Your task to perform on an android device: What's the weather? Image 0: 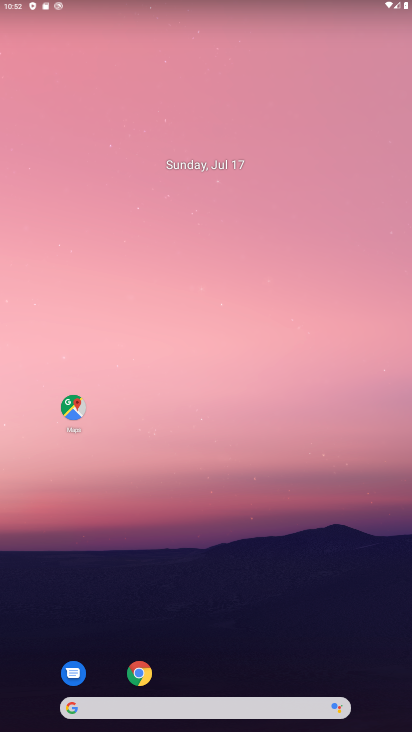
Step 0: click (218, 702)
Your task to perform on an android device: What's the weather? Image 1: 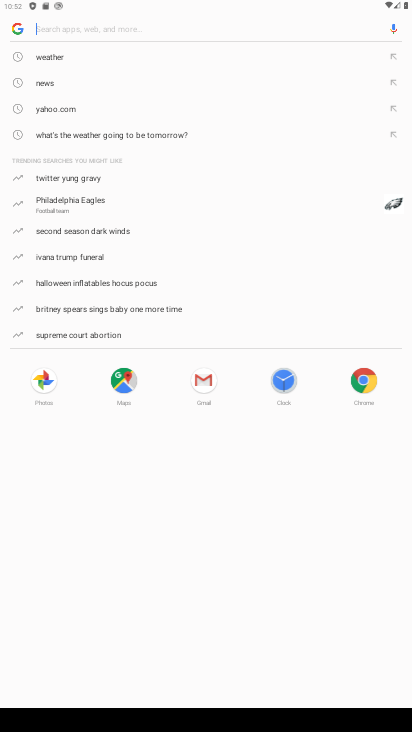
Step 1: type "weather"
Your task to perform on an android device: What's the weather? Image 2: 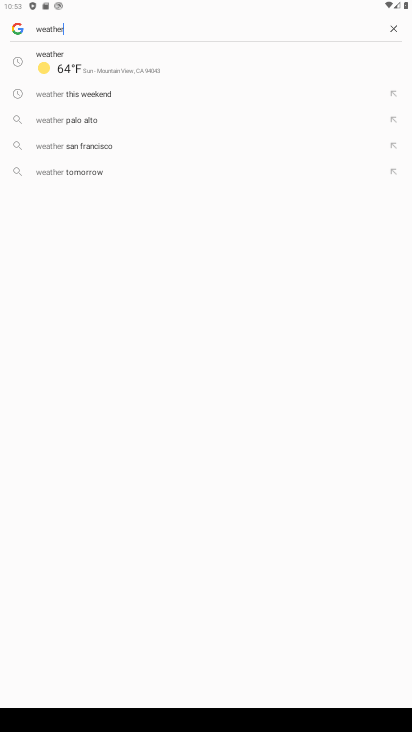
Step 2: click (59, 52)
Your task to perform on an android device: What's the weather? Image 3: 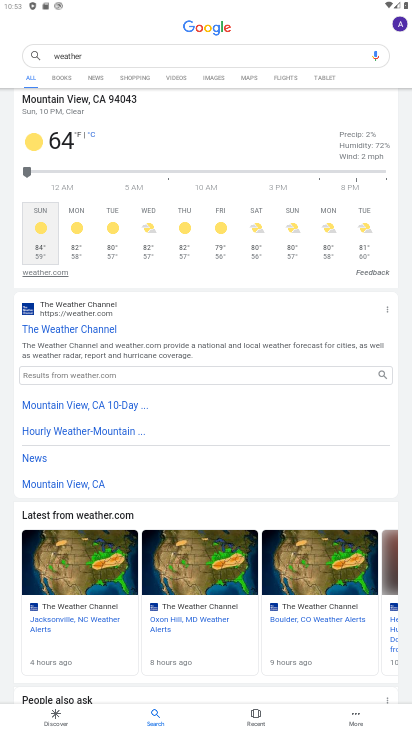
Step 3: task complete